Your task to perform on an android device: What's the weather? Image 0: 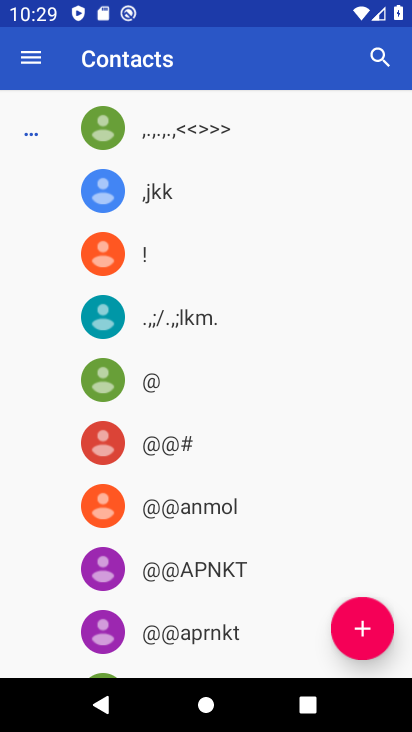
Step 0: press home button
Your task to perform on an android device: What's the weather? Image 1: 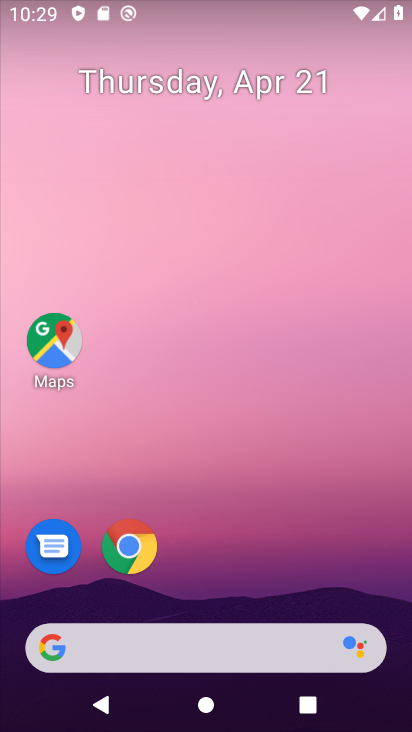
Step 1: drag from (263, 582) to (252, 124)
Your task to perform on an android device: What's the weather? Image 2: 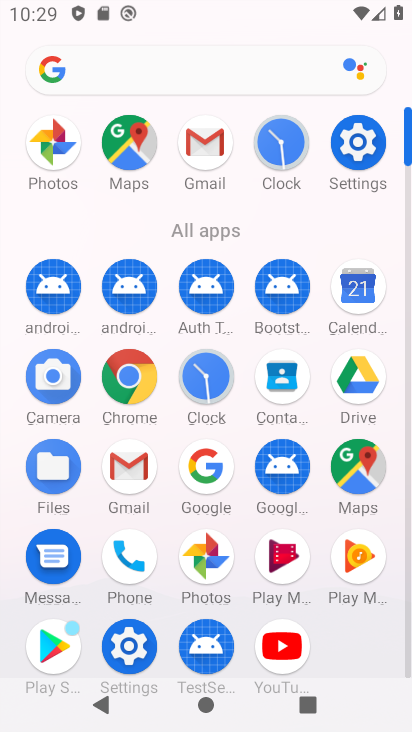
Step 2: click (124, 378)
Your task to perform on an android device: What's the weather? Image 3: 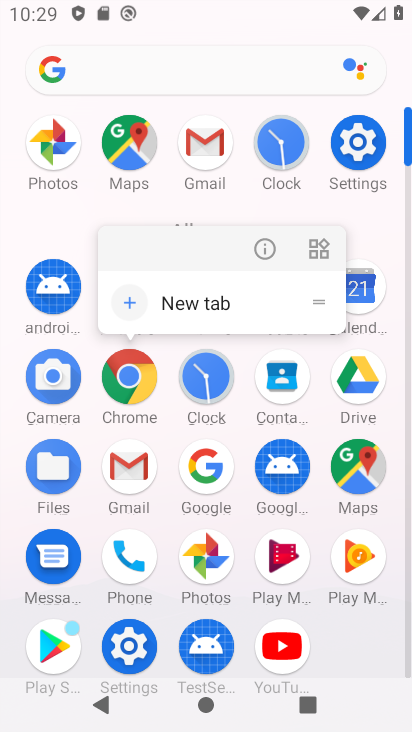
Step 3: click (132, 378)
Your task to perform on an android device: What's the weather? Image 4: 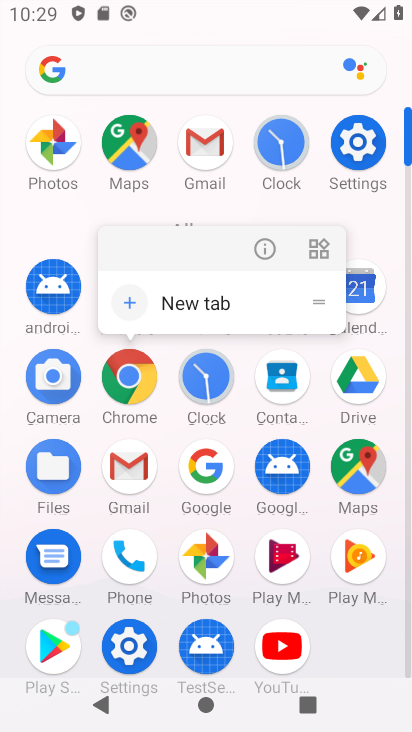
Step 4: click (133, 379)
Your task to perform on an android device: What's the weather? Image 5: 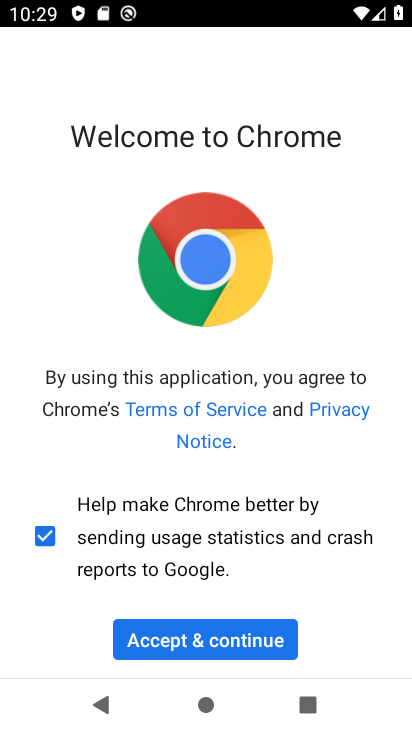
Step 5: click (155, 634)
Your task to perform on an android device: What's the weather? Image 6: 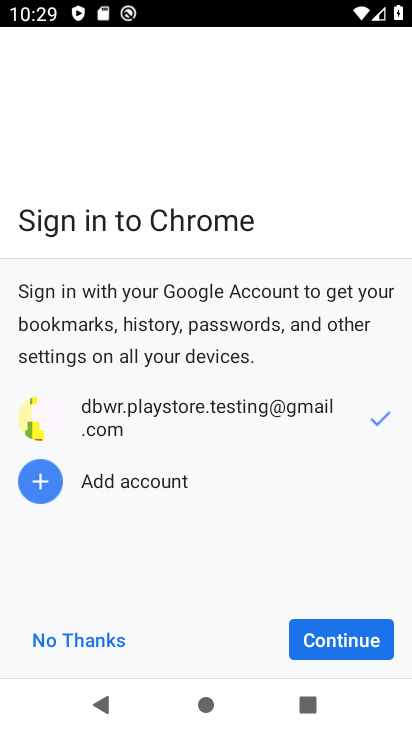
Step 6: click (334, 641)
Your task to perform on an android device: What's the weather? Image 7: 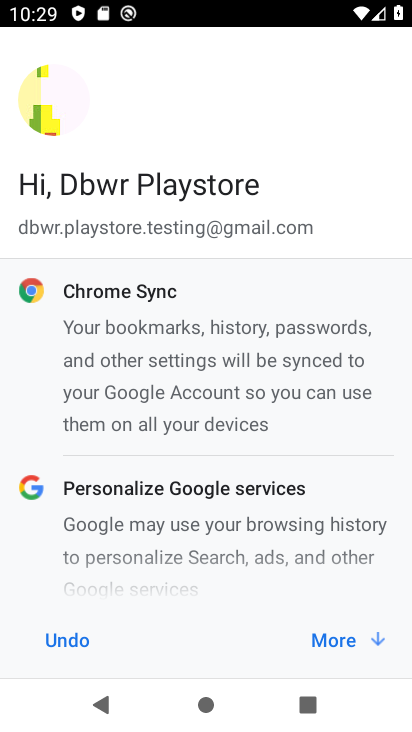
Step 7: click (333, 635)
Your task to perform on an android device: What's the weather? Image 8: 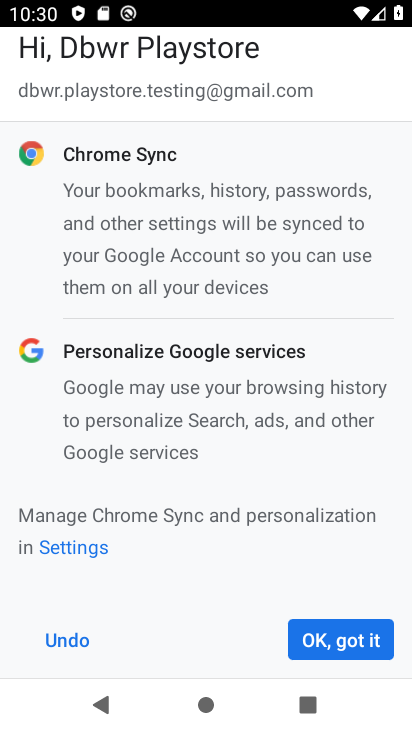
Step 8: click (333, 634)
Your task to perform on an android device: What's the weather? Image 9: 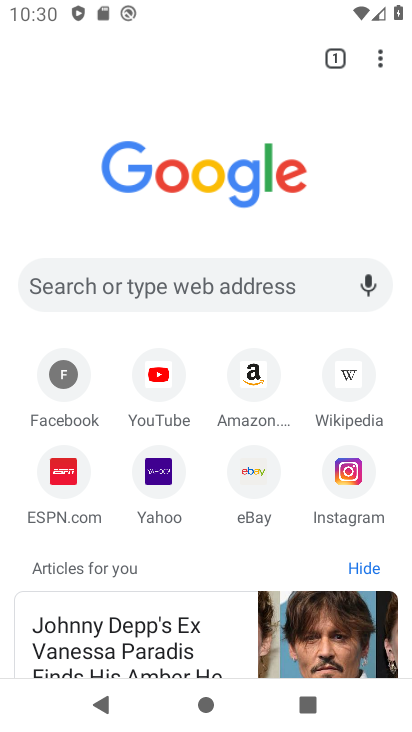
Step 9: click (244, 277)
Your task to perform on an android device: What's the weather? Image 10: 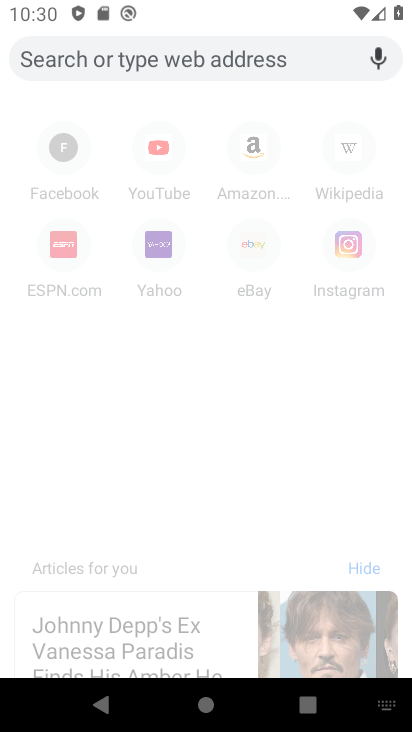
Step 10: type "weather"
Your task to perform on an android device: What's the weather? Image 11: 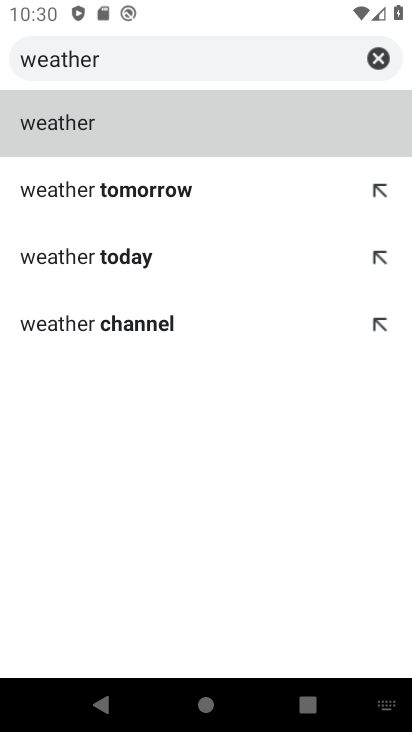
Step 11: press enter
Your task to perform on an android device: What's the weather? Image 12: 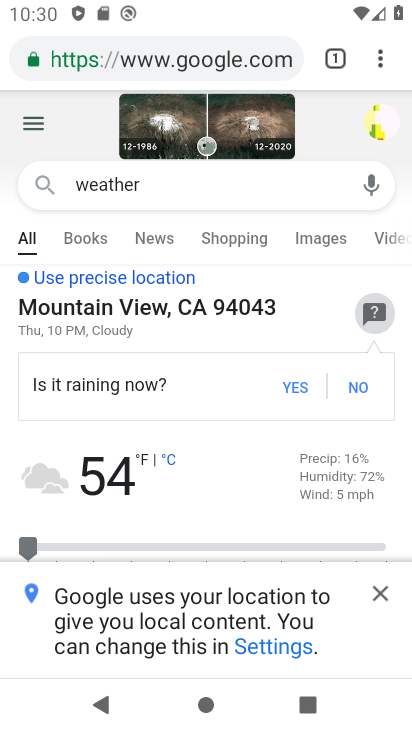
Step 12: task complete